Your task to perform on an android device: see creations saved in the google photos Image 0: 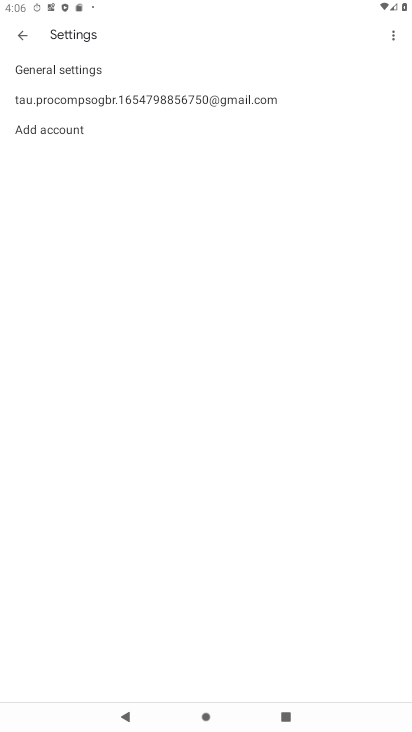
Step 0: press home button
Your task to perform on an android device: see creations saved in the google photos Image 1: 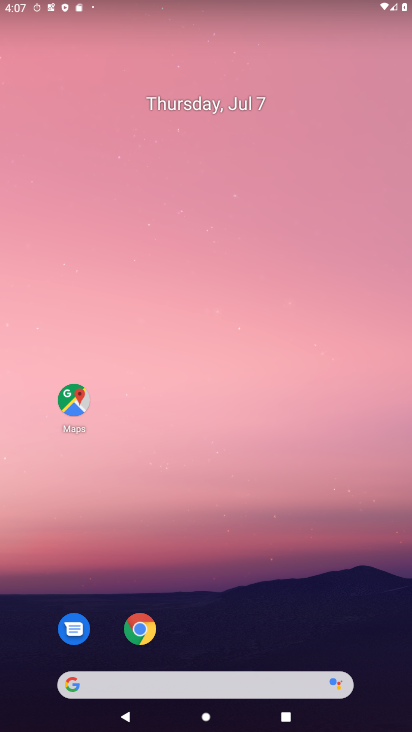
Step 1: drag from (191, 492) to (151, 2)
Your task to perform on an android device: see creations saved in the google photos Image 2: 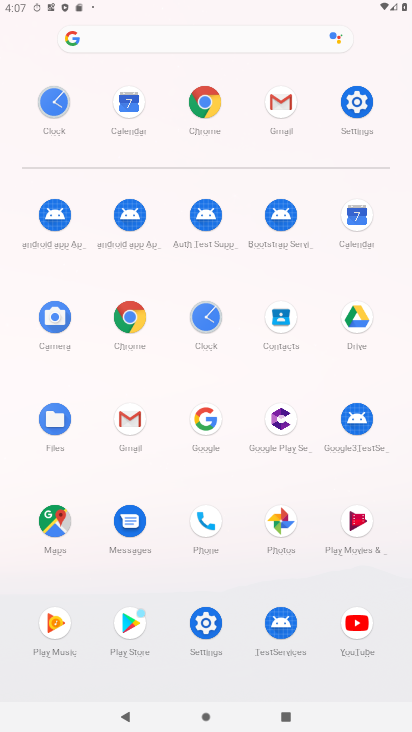
Step 2: click (294, 544)
Your task to perform on an android device: see creations saved in the google photos Image 3: 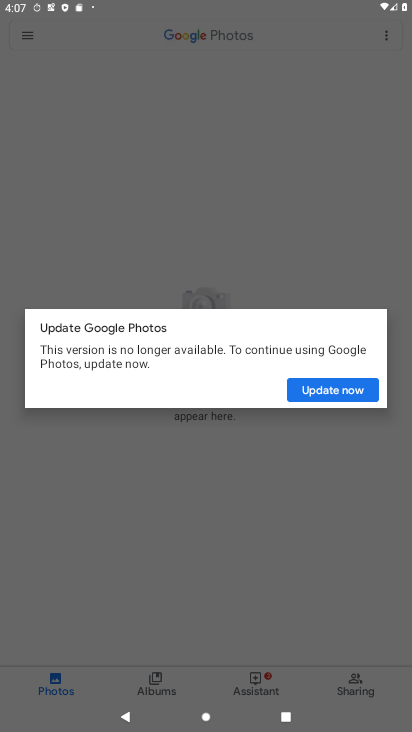
Step 3: click (312, 392)
Your task to perform on an android device: see creations saved in the google photos Image 4: 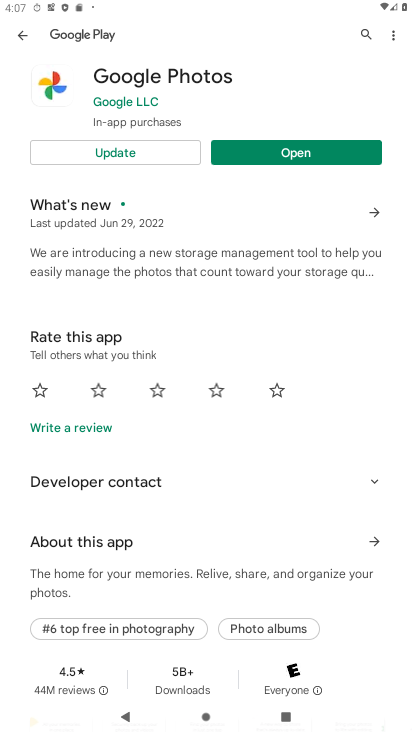
Step 4: click (104, 145)
Your task to perform on an android device: see creations saved in the google photos Image 5: 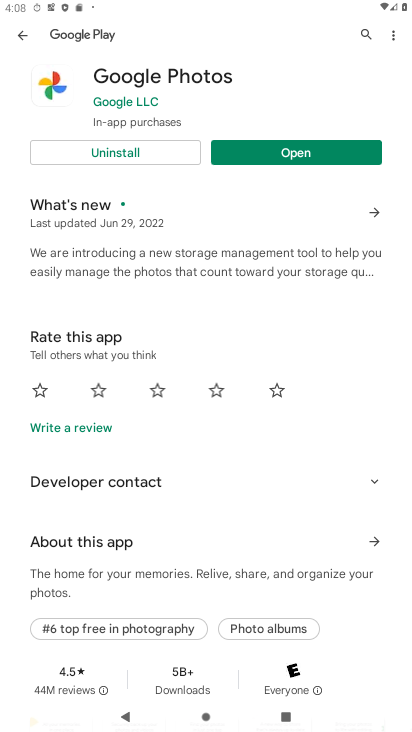
Step 5: click (315, 149)
Your task to perform on an android device: see creations saved in the google photos Image 6: 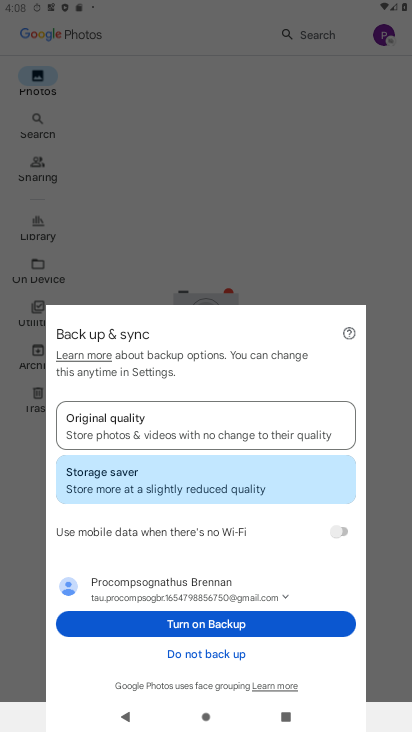
Step 6: click (179, 626)
Your task to perform on an android device: see creations saved in the google photos Image 7: 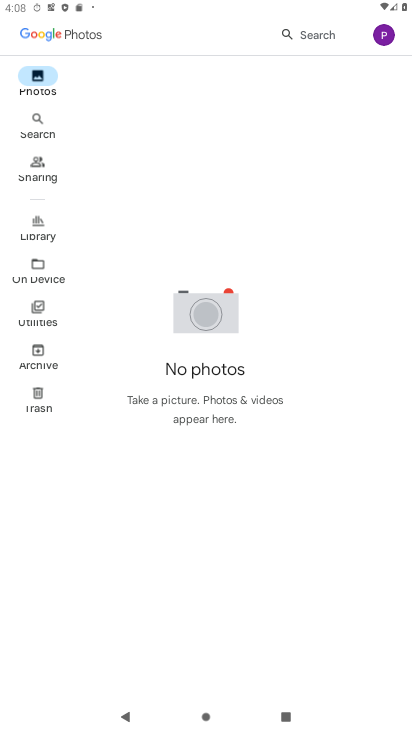
Step 7: task complete